Your task to perform on an android device: Search for pizza restaurants on Maps Image 0: 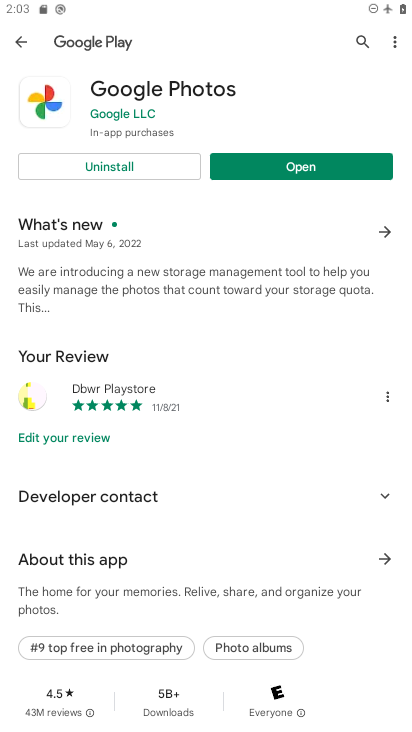
Step 0: press home button
Your task to perform on an android device: Search for pizza restaurants on Maps Image 1: 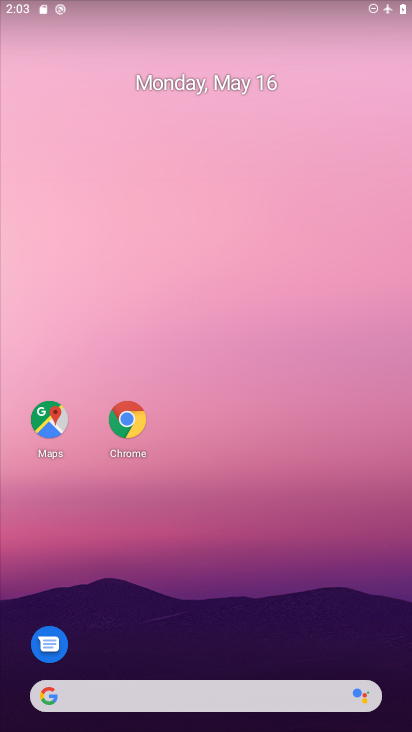
Step 1: drag from (185, 578) to (281, 187)
Your task to perform on an android device: Search for pizza restaurants on Maps Image 2: 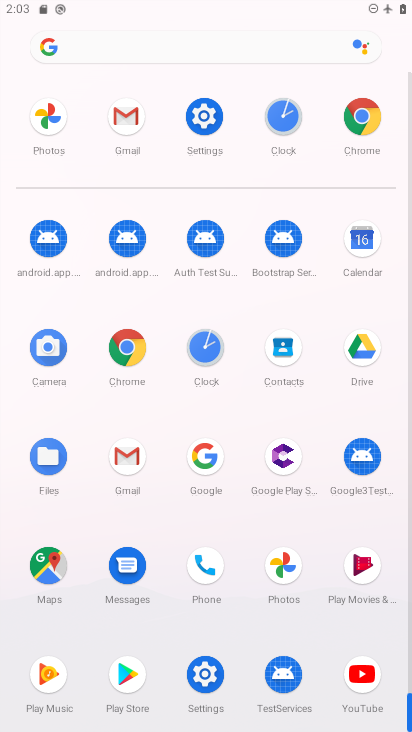
Step 2: click (50, 565)
Your task to perform on an android device: Search for pizza restaurants on Maps Image 3: 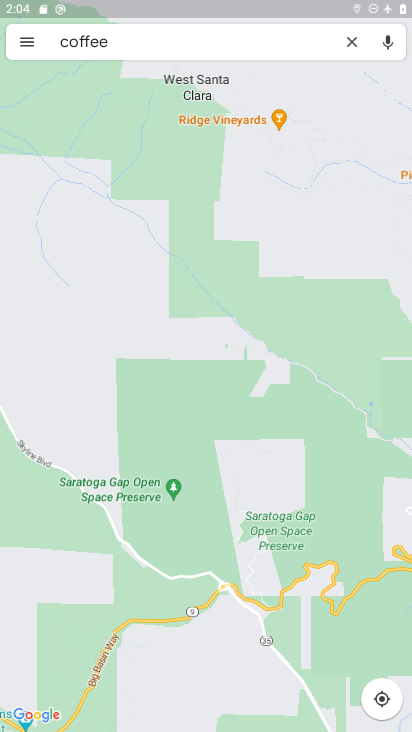
Step 3: click (356, 43)
Your task to perform on an android device: Search for pizza restaurants on Maps Image 4: 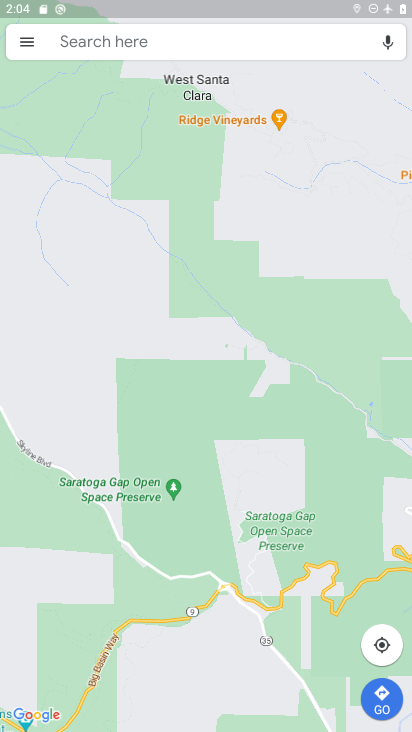
Step 4: click (101, 36)
Your task to perform on an android device: Search for pizza restaurants on Maps Image 5: 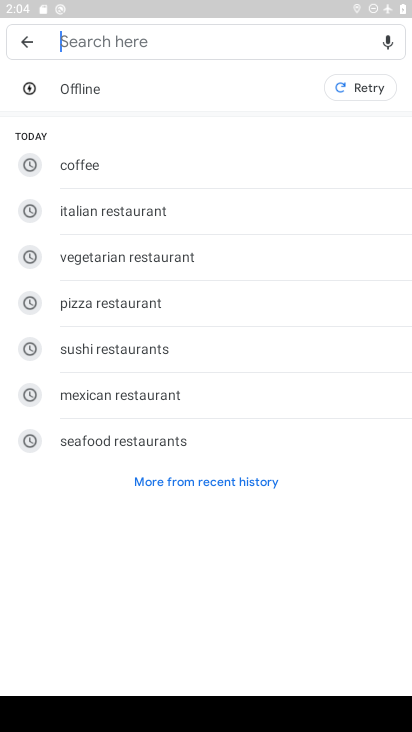
Step 5: click (91, 301)
Your task to perform on an android device: Search for pizza restaurants on Maps Image 6: 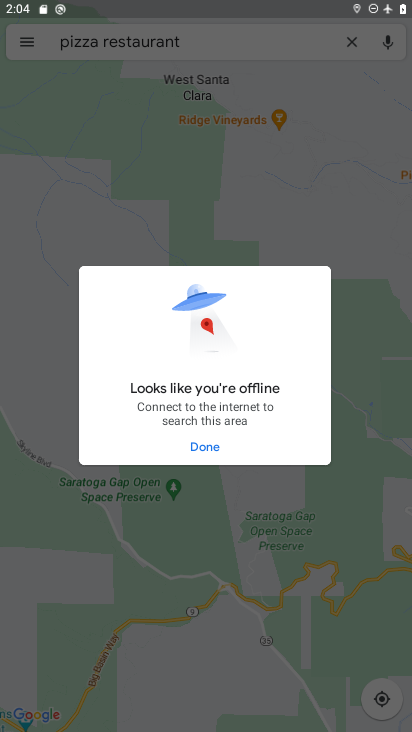
Step 6: click (197, 451)
Your task to perform on an android device: Search for pizza restaurants on Maps Image 7: 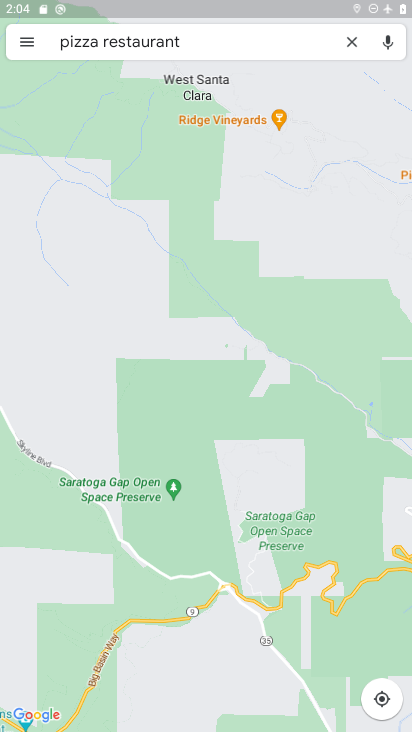
Step 7: click (246, 34)
Your task to perform on an android device: Search for pizza restaurants on Maps Image 8: 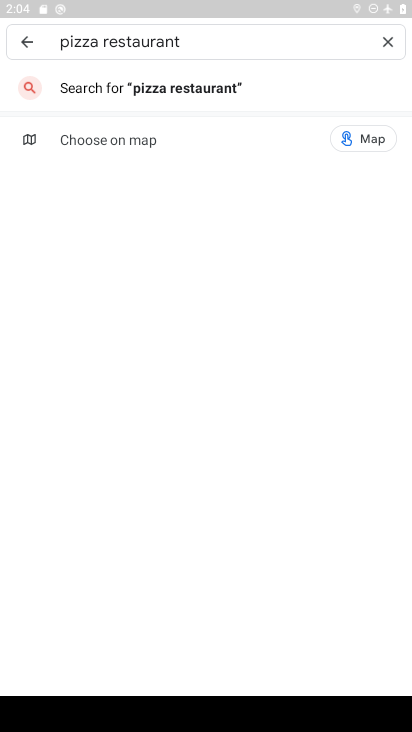
Step 8: click (170, 81)
Your task to perform on an android device: Search for pizza restaurants on Maps Image 9: 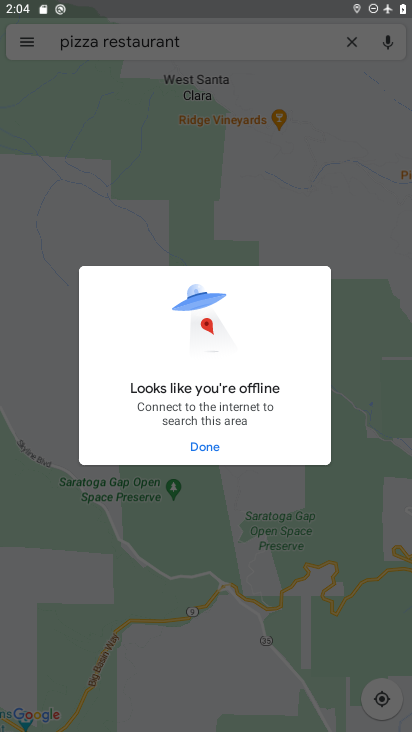
Step 9: click (208, 441)
Your task to perform on an android device: Search for pizza restaurants on Maps Image 10: 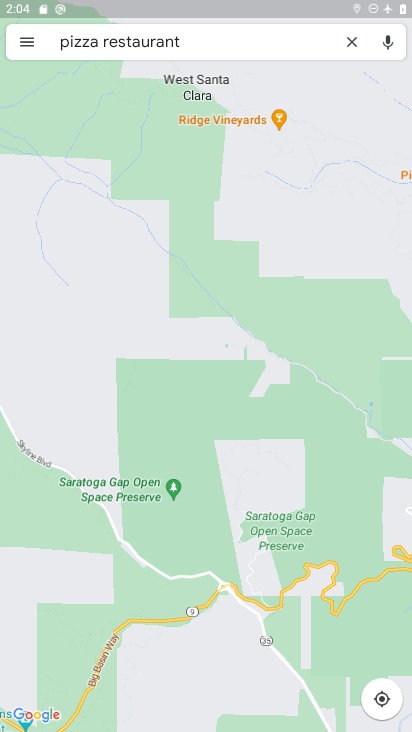
Step 10: task complete